Your task to perform on an android device: turn vacation reply on in the gmail app Image 0: 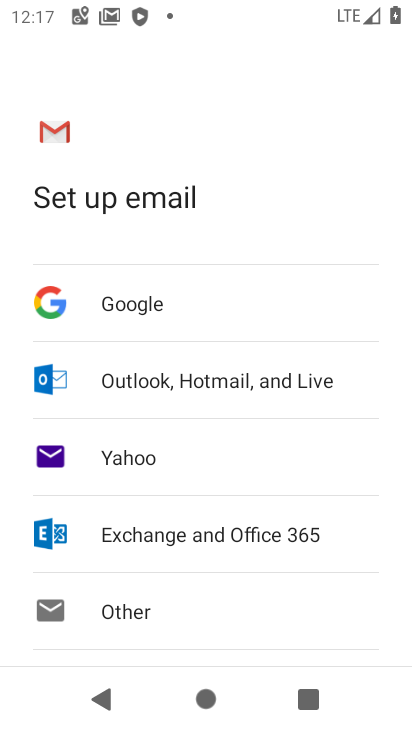
Step 0: press home button
Your task to perform on an android device: turn vacation reply on in the gmail app Image 1: 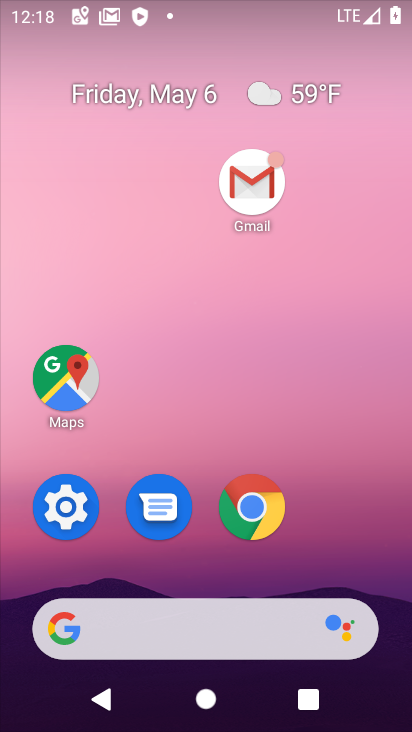
Step 1: click (257, 186)
Your task to perform on an android device: turn vacation reply on in the gmail app Image 2: 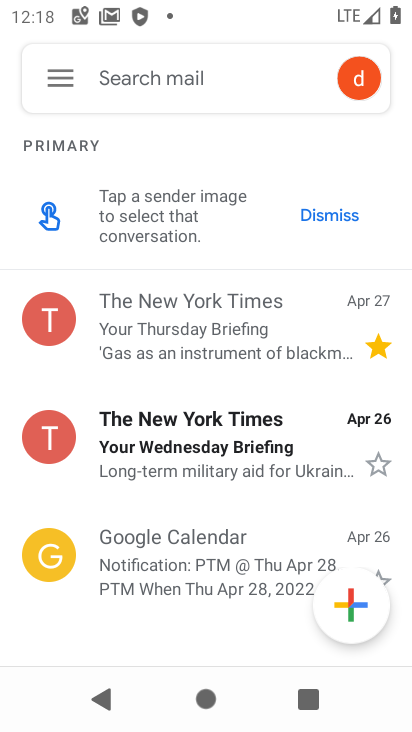
Step 2: click (58, 70)
Your task to perform on an android device: turn vacation reply on in the gmail app Image 3: 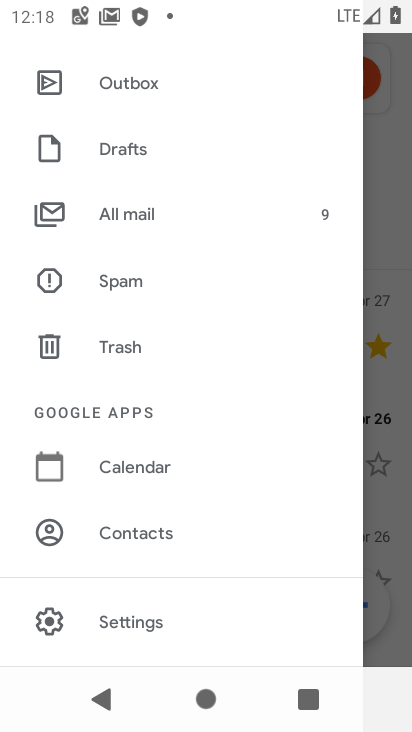
Step 3: click (135, 618)
Your task to perform on an android device: turn vacation reply on in the gmail app Image 4: 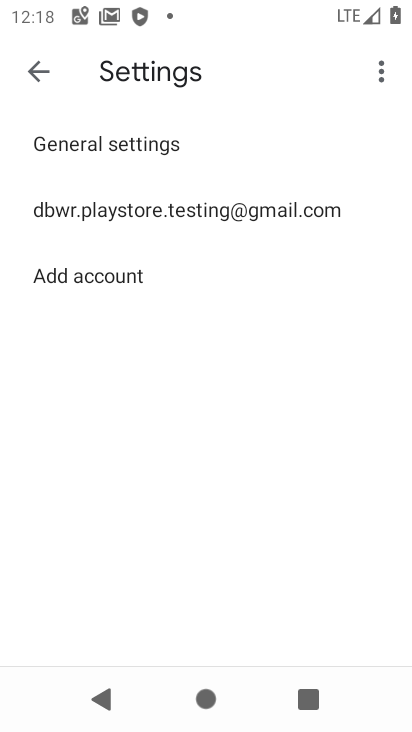
Step 4: click (142, 144)
Your task to perform on an android device: turn vacation reply on in the gmail app Image 5: 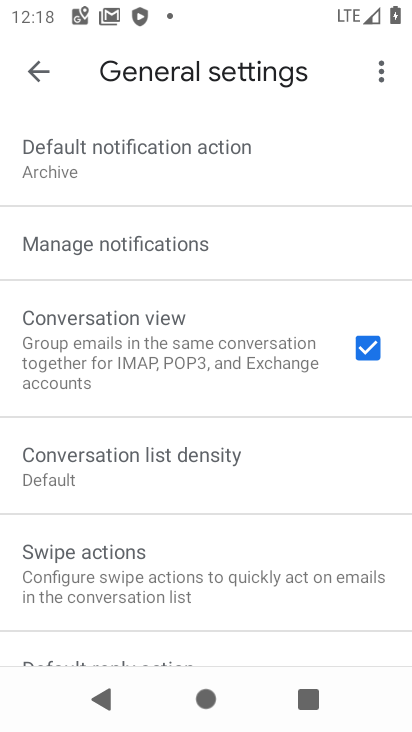
Step 5: drag from (219, 555) to (220, 278)
Your task to perform on an android device: turn vacation reply on in the gmail app Image 6: 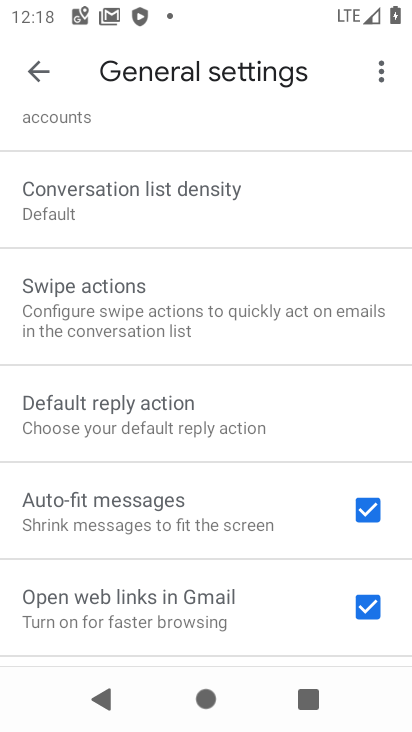
Step 6: drag from (207, 511) to (174, 97)
Your task to perform on an android device: turn vacation reply on in the gmail app Image 7: 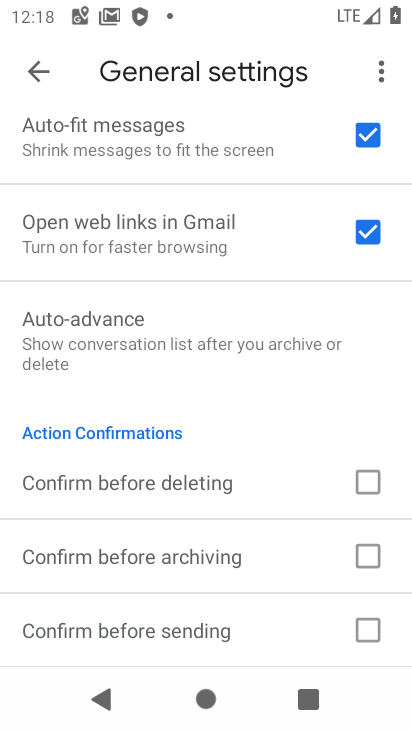
Step 7: drag from (203, 403) to (140, 115)
Your task to perform on an android device: turn vacation reply on in the gmail app Image 8: 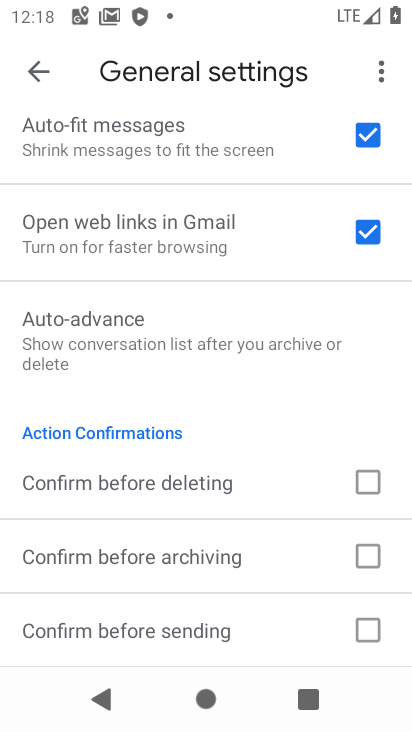
Step 8: click (32, 59)
Your task to perform on an android device: turn vacation reply on in the gmail app Image 9: 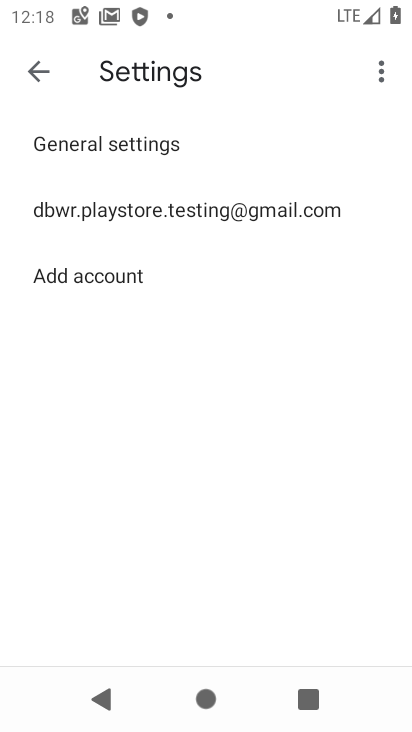
Step 9: click (99, 210)
Your task to perform on an android device: turn vacation reply on in the gmail app Image 10: 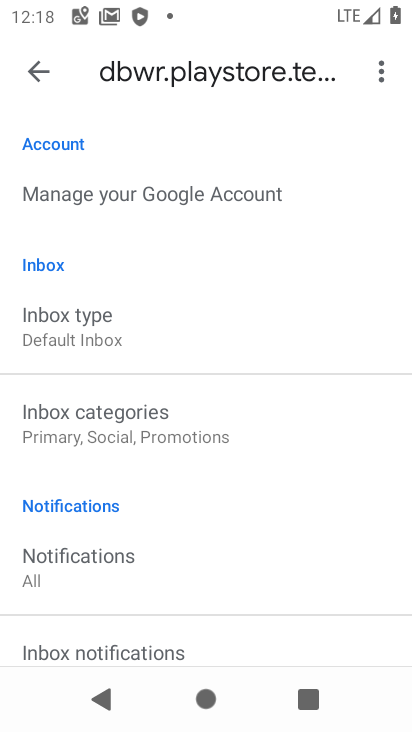
Step 10: drag from (205, 523) to (188, 241)
Your task to perform on an android device: turn vacation reply on in the gmail app Image 11: 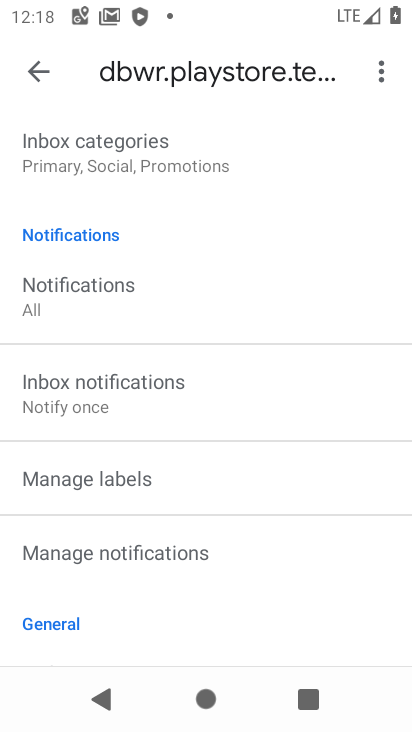
Step 11: drag from (249, 497) to (235, 140)
Your task to perform on an android device: turn vacation reply on in the gmail app Image 12: 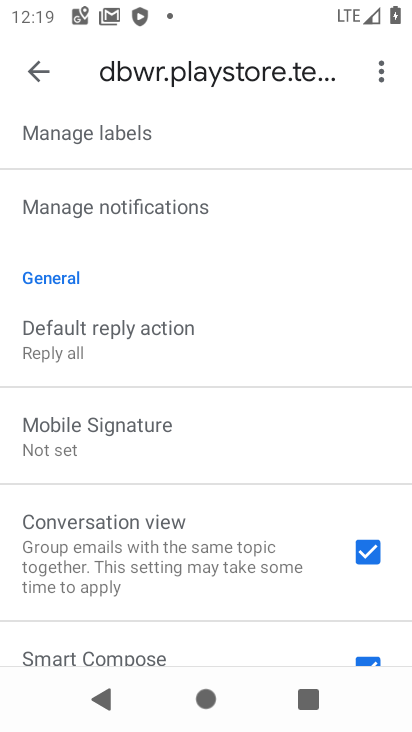
Step 12: drag from (225, 502) to (186, 216)
Your task to perform on an android device: turn vacation reply on in the gmail app Image 13: 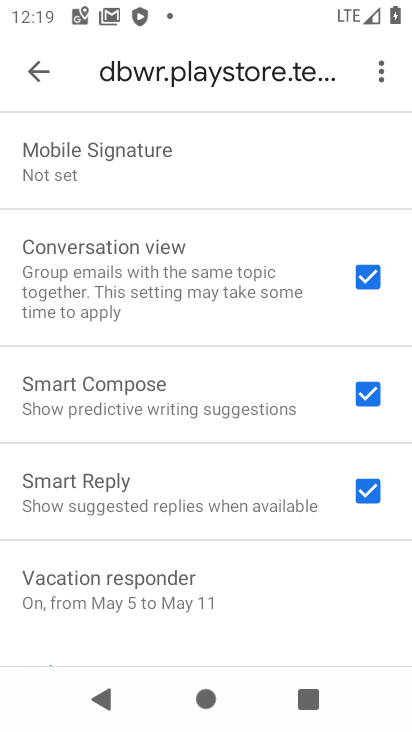
Step 13: click (143, 586)
Your task to perform on an android device: turn vacation reply on in the gmail app Image 14: 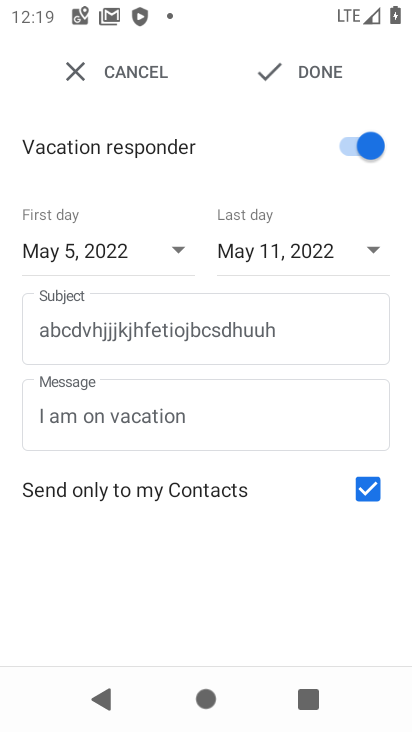
Step 14: task complete